Your task to perform on an android device: Open location settings Image 0: 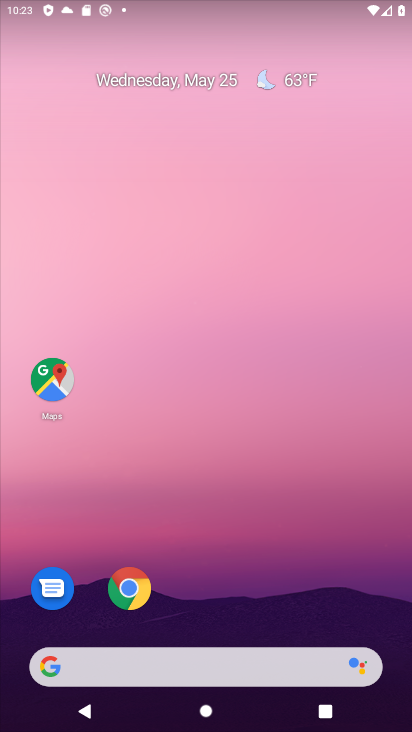
Step 0: drag from (255, 607) to (235, 90)
Your task to perform on an android device: Open location settings Image 1: 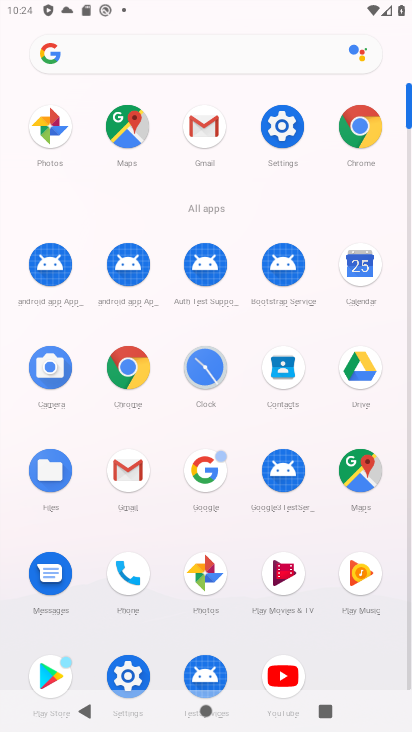
Step 1: click (284, 133)
Your task to perform on an android device: Open location settings Image 2: 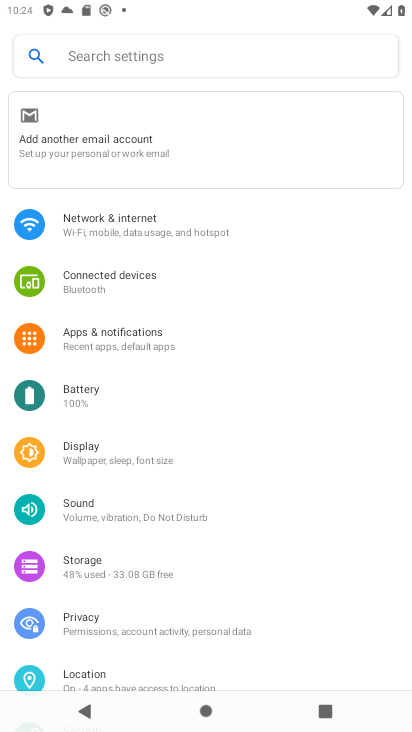
Step 2: click (84, 681)
Your task to perform on an android device: Open location settings Image 3: 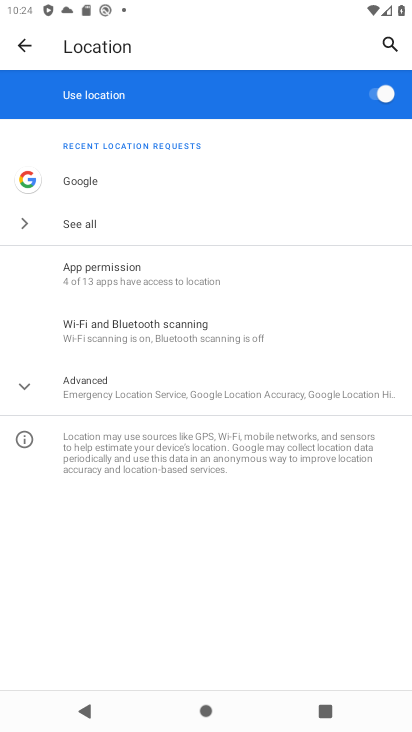
Step 3: task complete